Your task to perform on an android device: open a new tab in the chrome app Image 0: 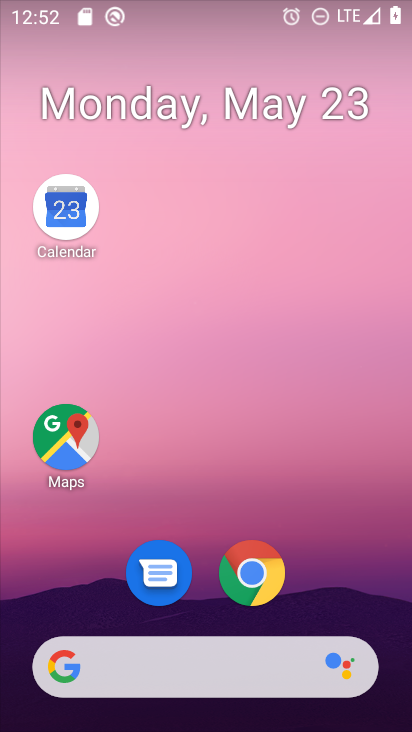
Step 0: click (249, 574)
Your task to perform on an android device: open a new tab in the chrome app Image 1: 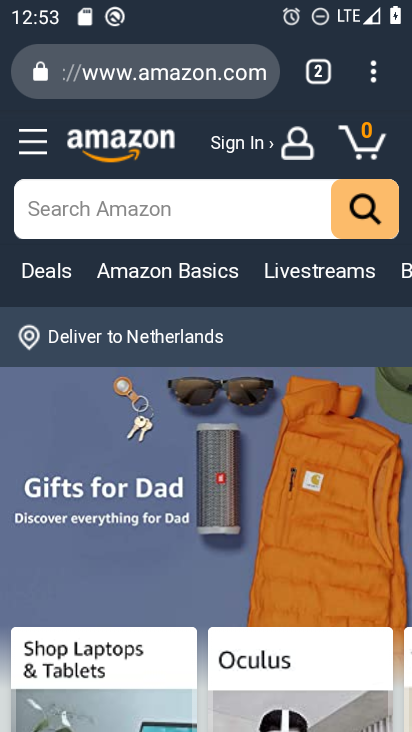
Step 1: click (364, 70)
Your task to perform on an android device: open a new tab in the chrome app Image 2: 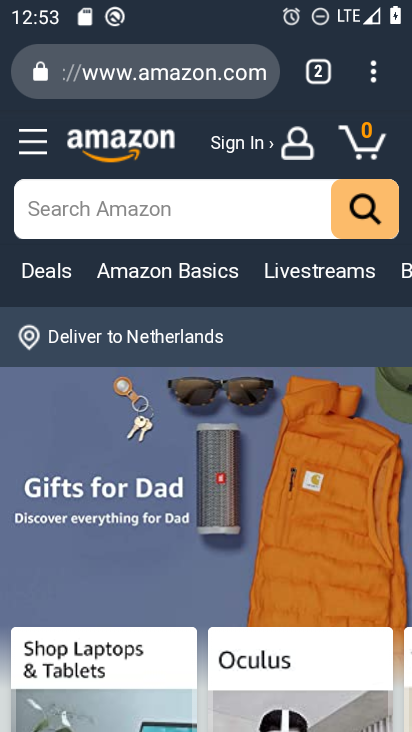
Step 2: click (383, 84)
Your task to perform on an android device: open a new tab in the chrome app Image 3: 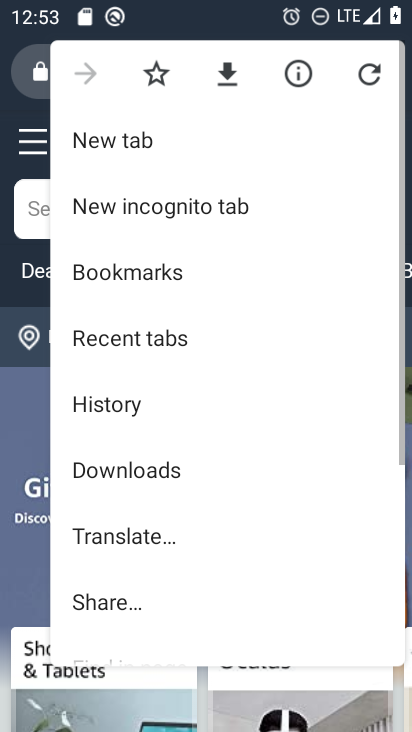
Step 3: click (158, 141)
Your task to perform on an android device: open a new tab in the chrome app Image 4: 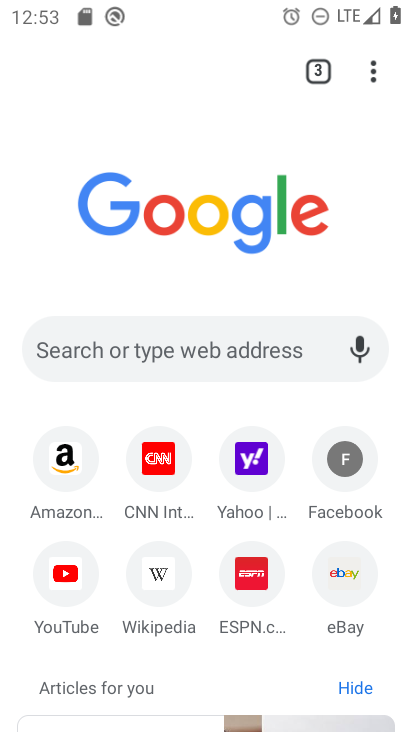
Step 4: task complete